Your task to perform on an android device: change timer sound Image 0: 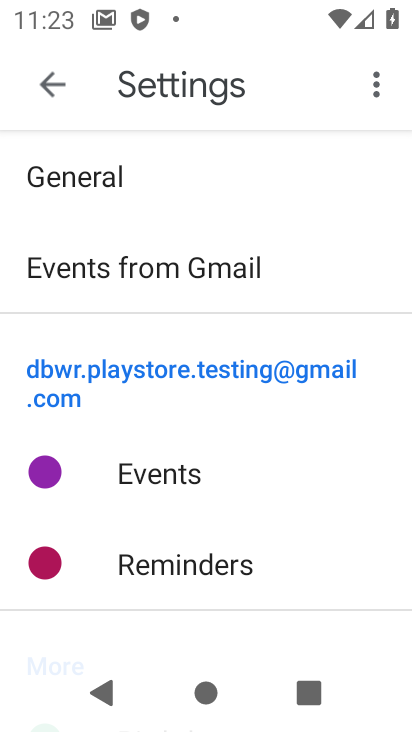
Step 0: press home button
Your task to perform on an android device: change timer sound Image 1: 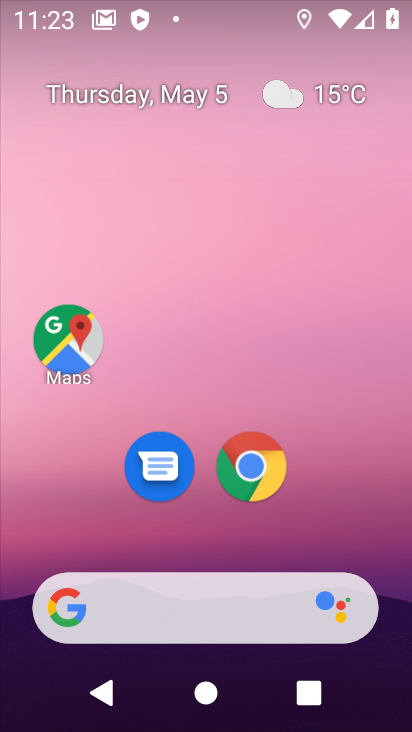
Step 1: drag from (219, 546) to (201, 194)
Your task to perform on an android device: change timer sound Image 2: 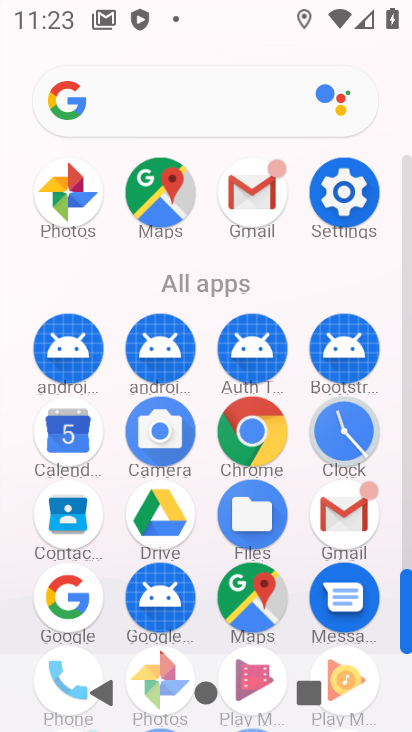
Step 2: click (353, 438)
Your task to perform on an android device: change timer sound Image 3: 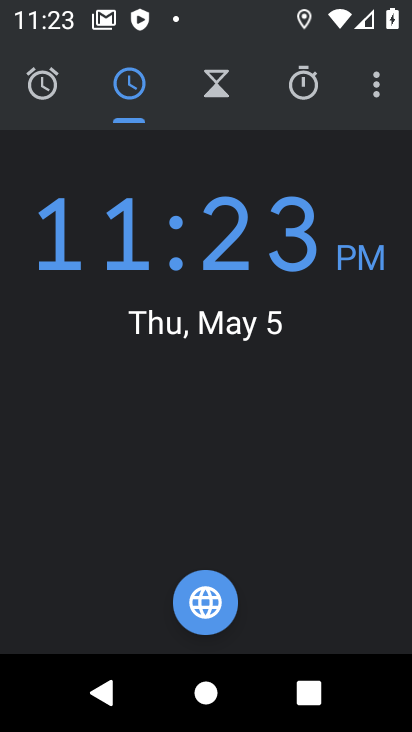
Step 3: click (375, 87)
Your task to perform on an android device: change timer sound Image 4: 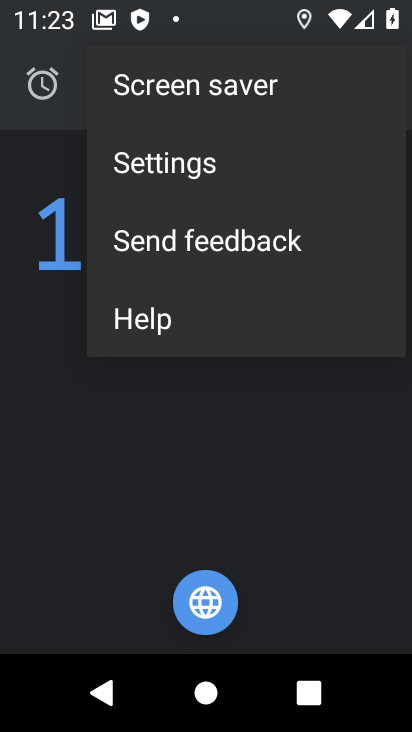
Step 4: click (208, 170)
Your task to perform on an android device: change timer sound Image 5: 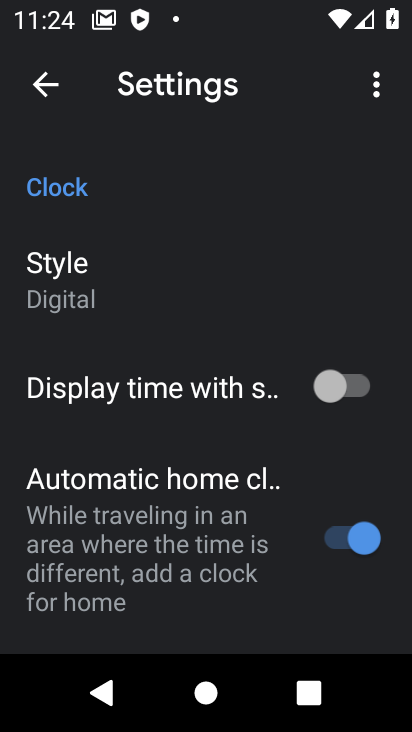
Step 5: drag from (135, 611) to (186, 190)
Your task to perform on an android device: change timer sound Image 6: 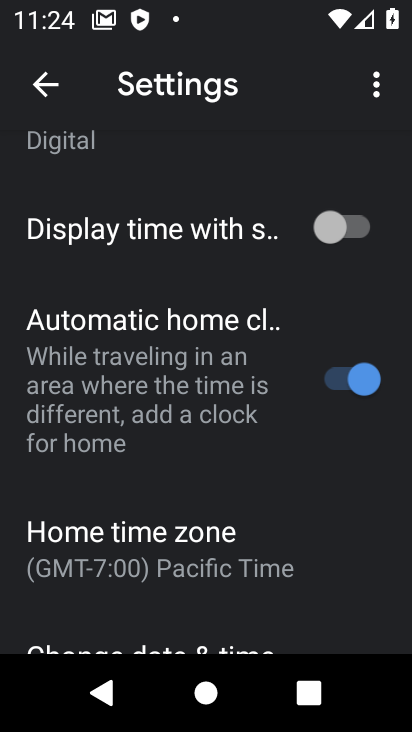
Step 6: drag from (157, 596) to (229, 137)
Your task to perform on an android device: change timer sound Image 7: 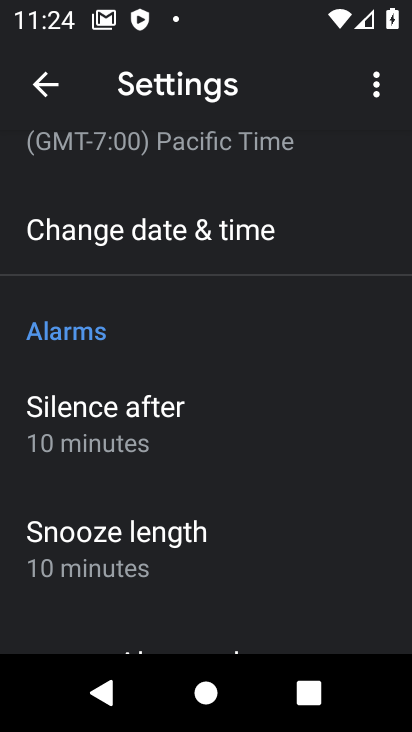
Step 7: drag from (153, 560) to (171, 208)
Your task to perform on an android device: change timer sound Image 8: 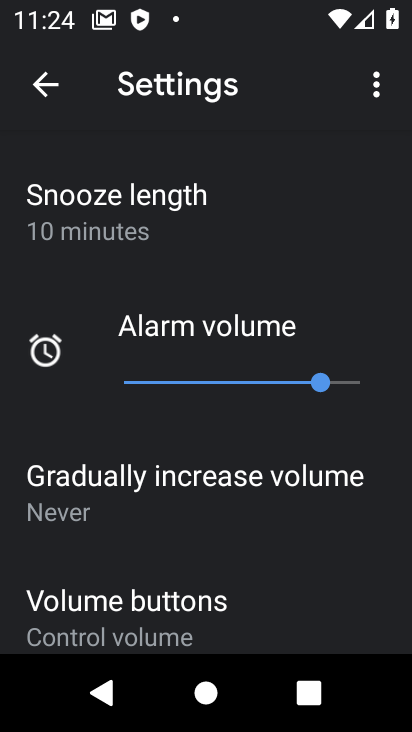
Step 8: drag from (153, 572) to (211, 204)
Your task to perform on an android device: change timer sound Image 9: 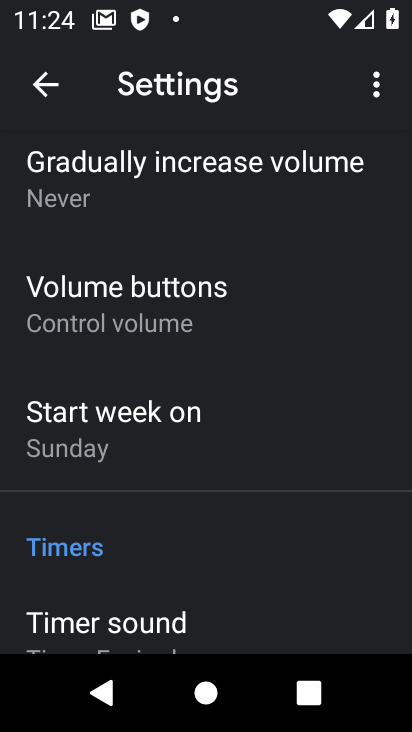
Step 9: click (142, 627)
Your task to perform on an android device: change timer sound Image 10: 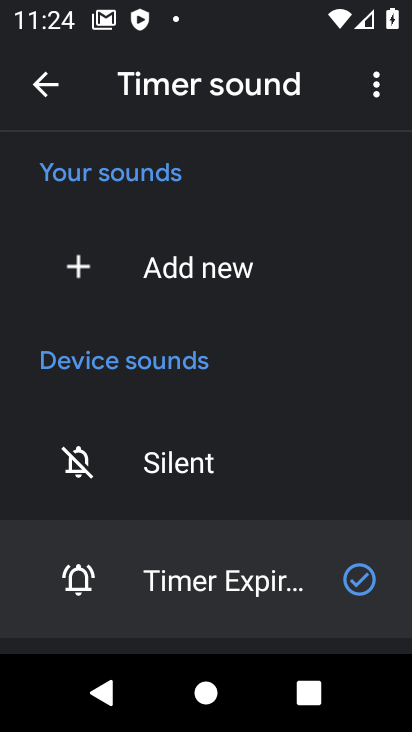
Step 10: drag from (191, 502) to (216, 293)
Your task to perform on an android device: change timer sound Image 11: 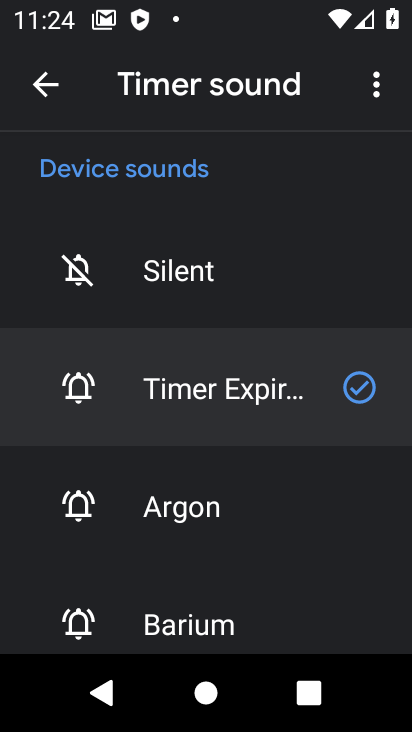
Step 11: click (202, 501)
Your task to perform on an android device: change timer sound Image 12: 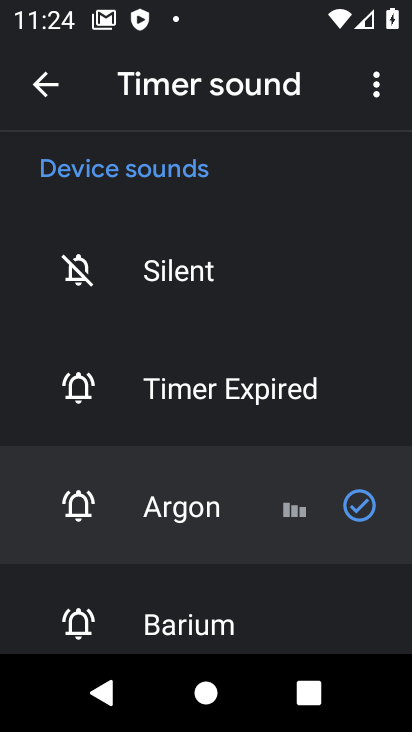
Step 12: task complete